Your task to perform on an android device: turn off location Image 0: 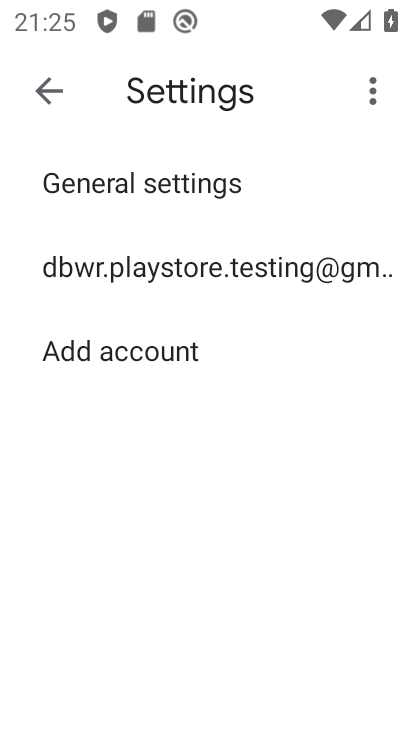
Step 0: press home button
Your task to perform on an android device: turn off location Image 1: 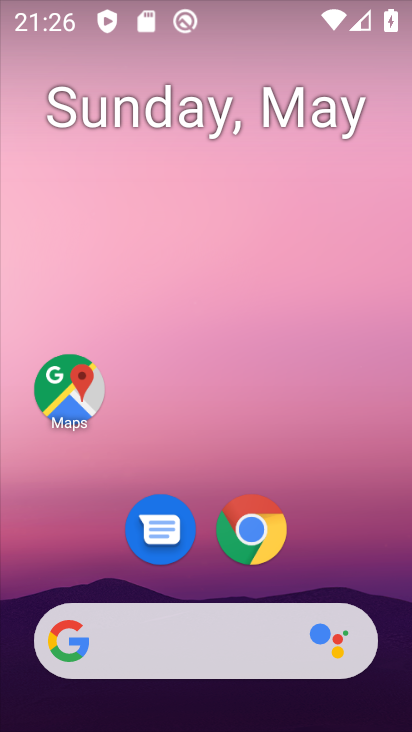
Step 1: drag from (332, 576) to (407, 50)
Your task to perform on an android device: turn off location Image 2: 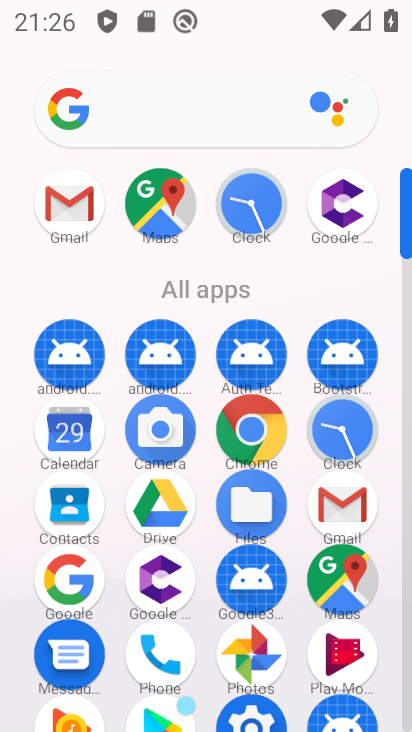
Step 2: drag from (197, 601) to (266, 279)
Your task to perform on an android device: turn off location Image 3: 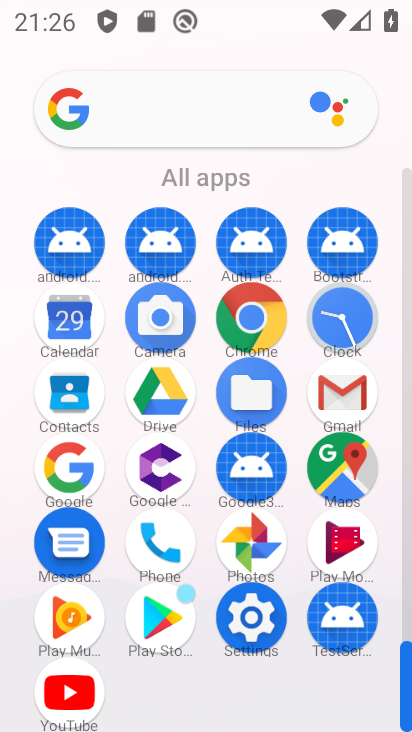
Step 3: click (238, 609)
Your task to perform on an android device: turn off location Image 4: 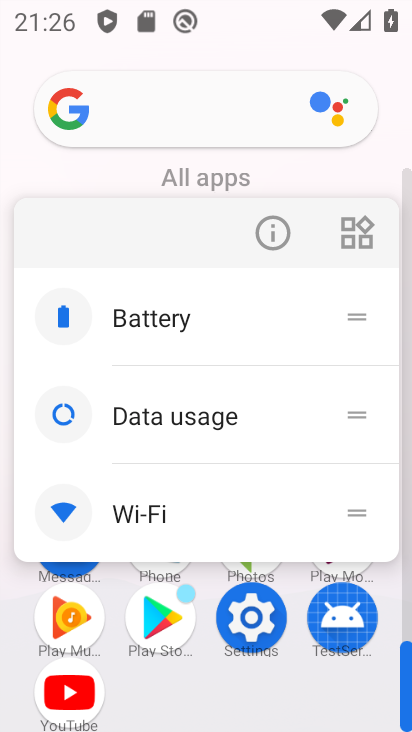
Step 4: click (259, 626)
Your task to perform on an android device: turn off location Image 5: 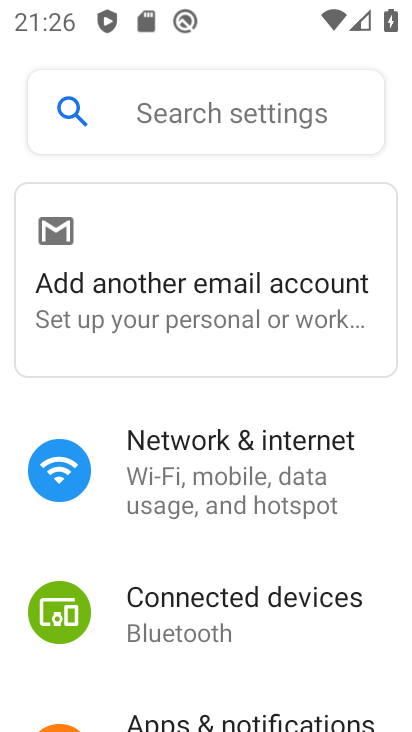
Step 5: drag from (191, 612) to (265, 125)
Your task to perform on an android device: turn off location Image 6: 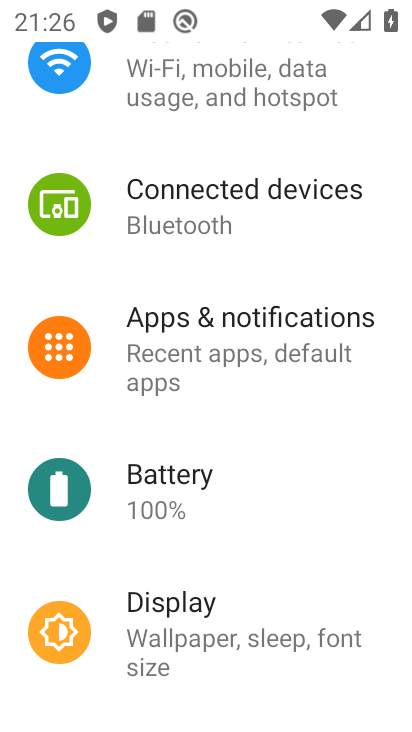
Step 6: drag from (235, 593) to (338, 103)
Your task to perform on an android device: turn off location Image 7: 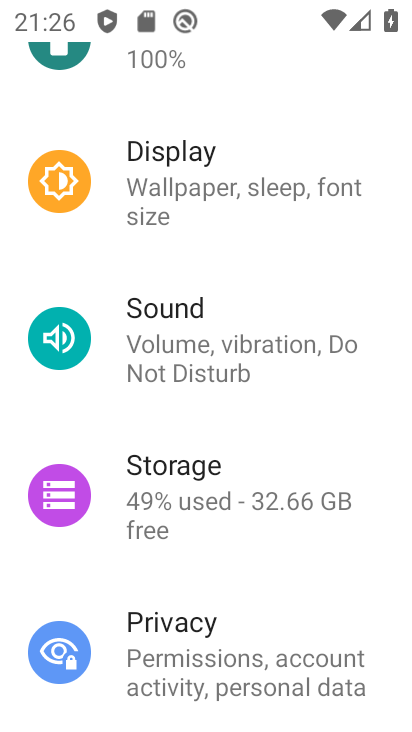
Step 7: drag from (196, 628) to (273, 193)
Your task to perform on an android device: turn off location Image 8: 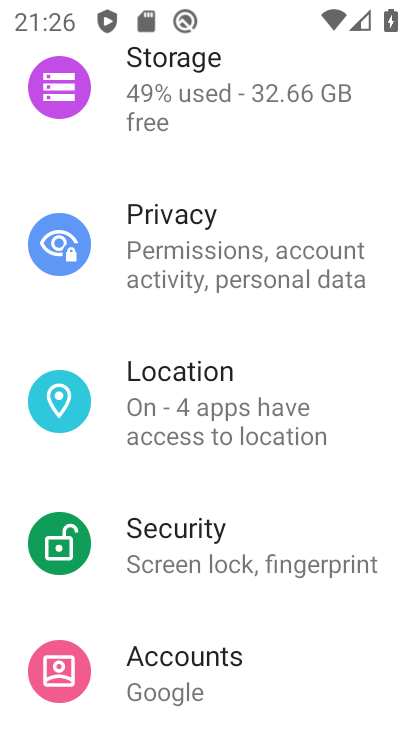
Step 8: click (153, 426)
Your task to perform on an android device: turn off location Image 9: 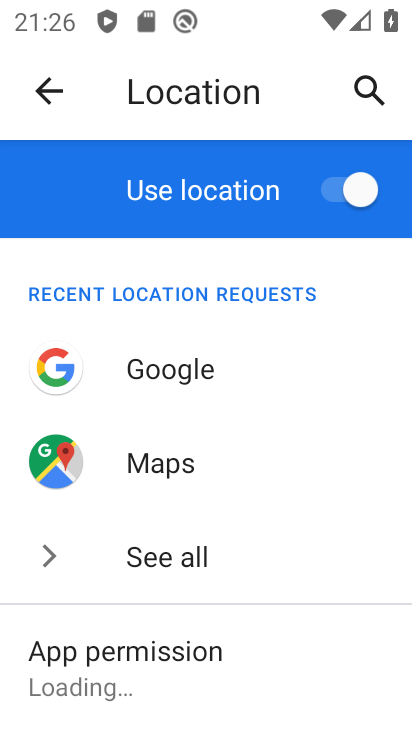
Step 9: click (336, 166)
Your task to perform on an android device: turn off location Image 10: 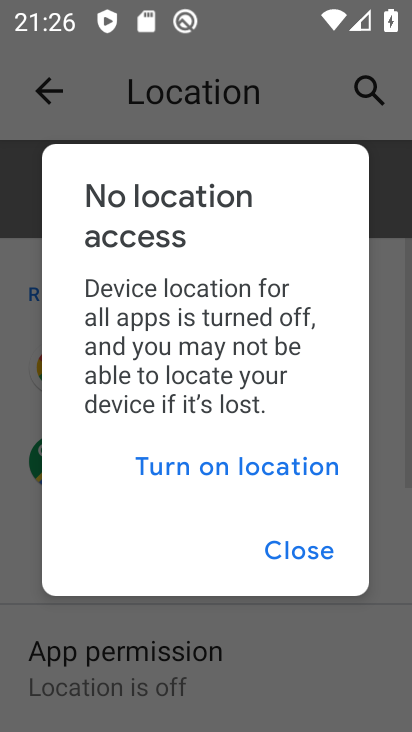
Step 10: task complete